Your task to perform on an android device: Search for Mexican restaurants on Maps Image 0: 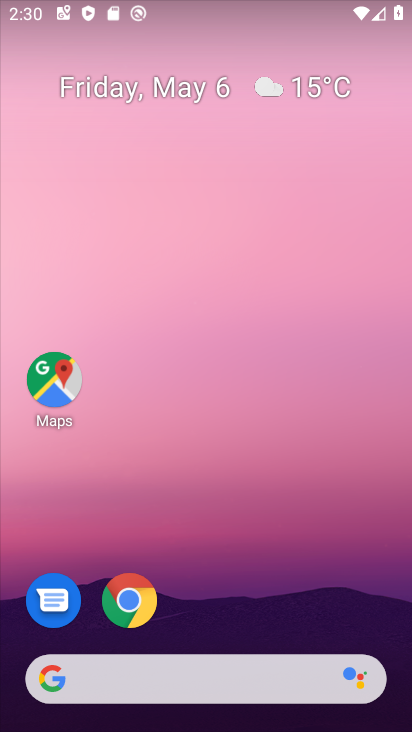
Step 0: drag from (267, 564) to (268, 15)
Your task to perform on an android device: Search for Mexican restaurants on Maps Image 1: 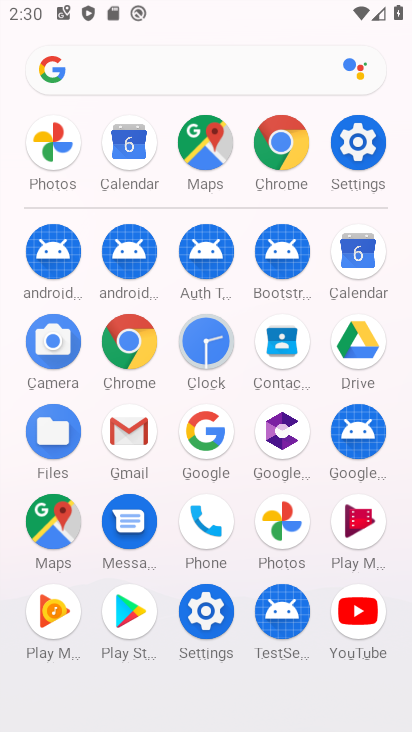
Step 1: drag from (2, 545) to (9, 305)
Your task to perform on an android device: Search for Mexican restaurants on Maps Image 2: 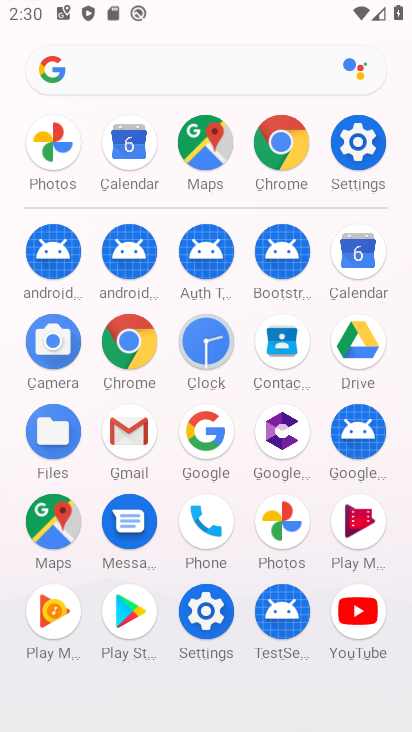
Step 2: click (54, 522)
Your task to perform on an android device: Search for Mexican restaurants on Maps Image 3: 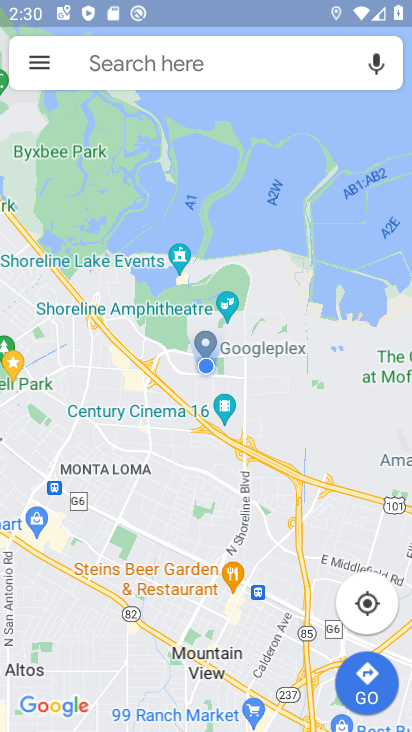
Step 3: click (246, 61)
Your task to perform on an android device: Search for Mexican restaurants on Maps Image 4: 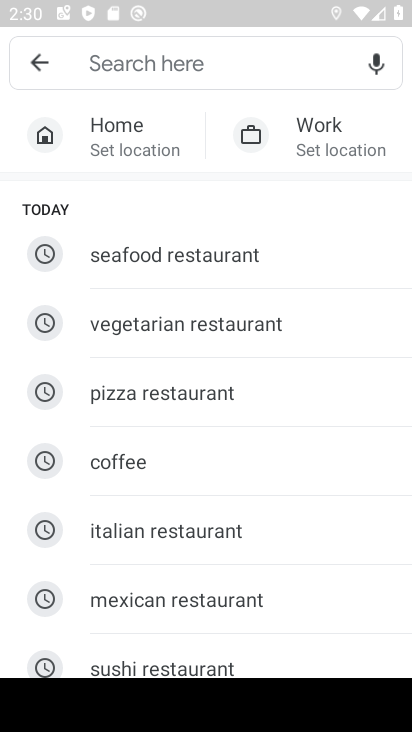
Step 4: click (234, 602)
Your task to perform on an android device: Search for Mexican restaurants on Maps Image 5: 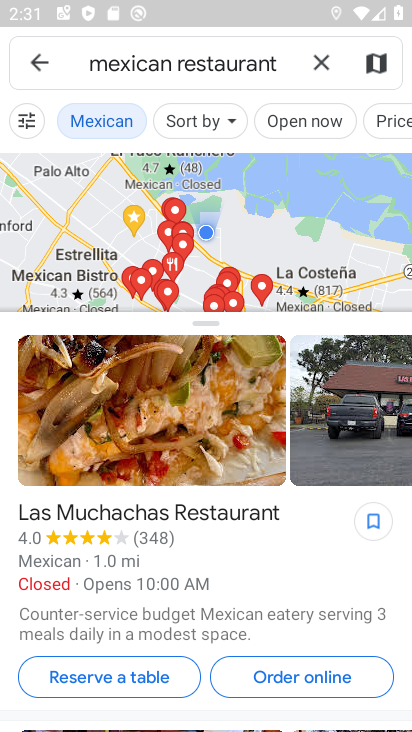
Step 5: task complete